Your task to perform on an android device: Open Maps and search for coffee Image 0: 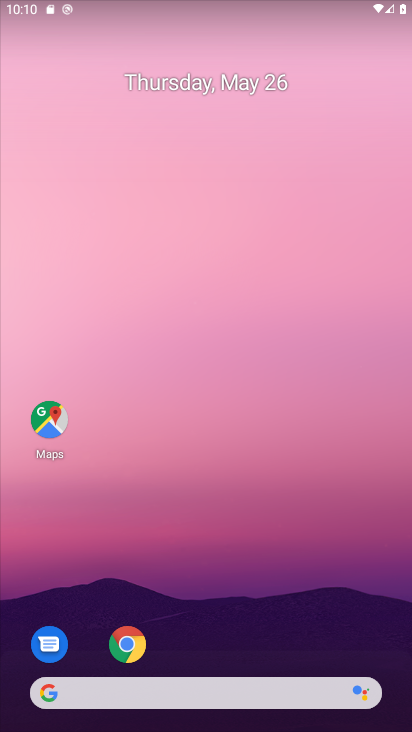
Step 0: drag from (344, 631) to (274, 89)
Your task to perform on an android device: Open Maps and search for coffee Image 1: 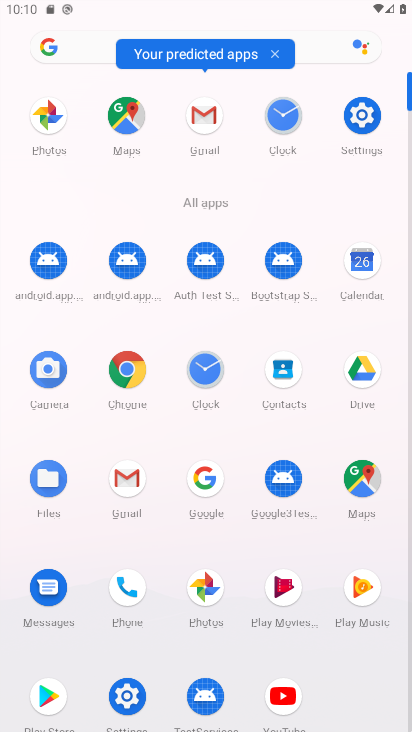
Step 1: click (364, 478)
Your task to perform on an android device: Open Maps and search for coffee Image 2: 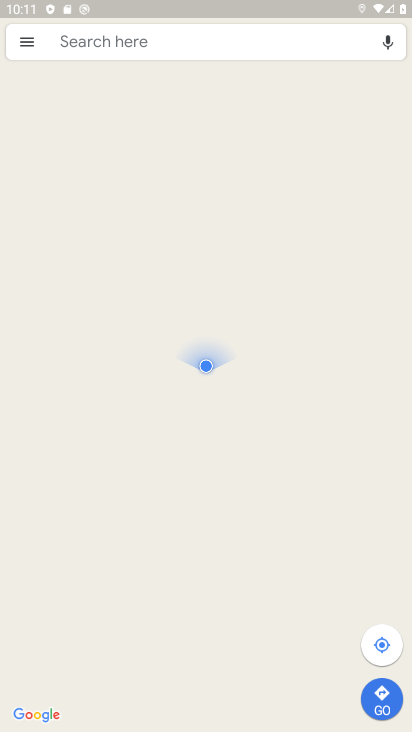
Step 2: click (192, 47)
Your task to perform on an android device: Open Maps and search for coffee Image 3: 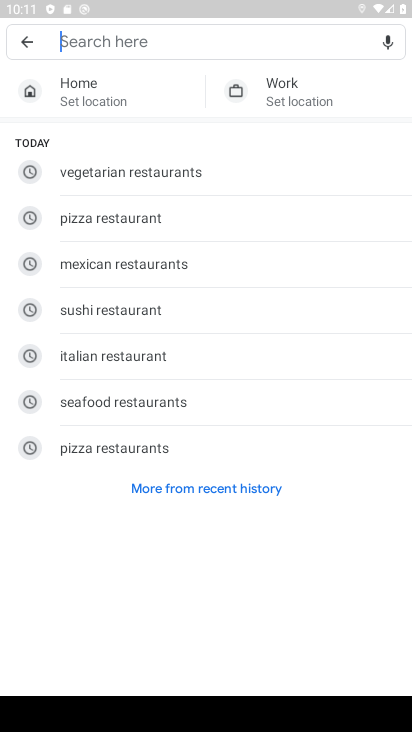
Step 3: type "coffe"
Your task to perform on an android device: Open Maps and search for coffee Image 4: 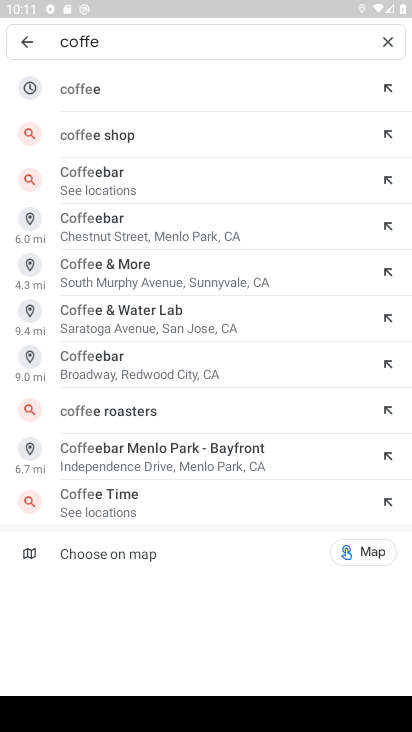
Step 4: click (141, 78)
Your task to perform on an android device: Open Maps and search for coffee Image 5: 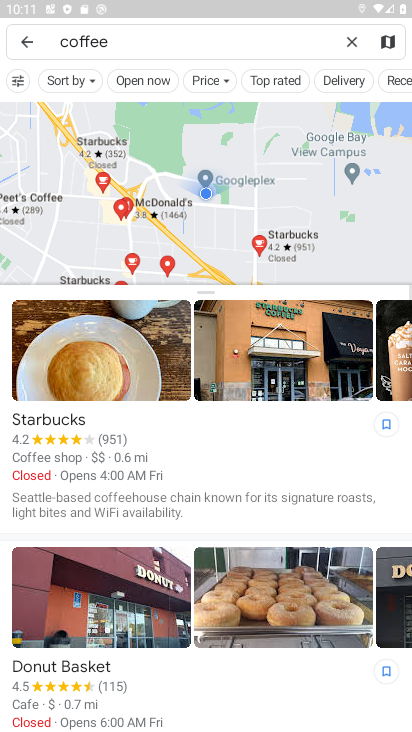
Step 5: task complete